Your task to perform on an android device: uninstall "Roku - Official Remote Control" Image 0: 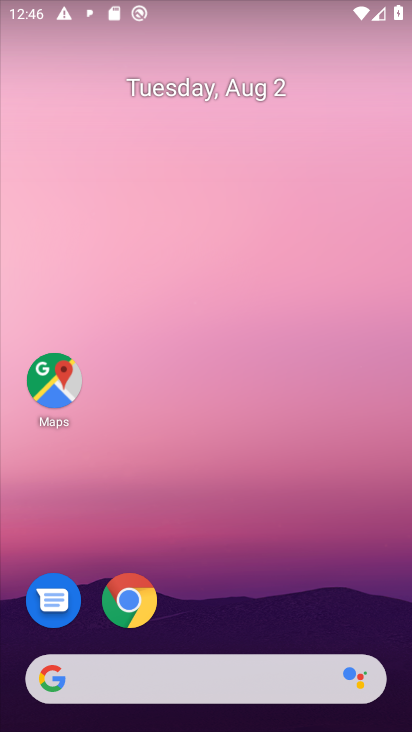
Step 0: drag from (167, 651) to (145, 223)
Your task to perform on an android device: uninstall "Roku - Official Remote Control" Image 1: 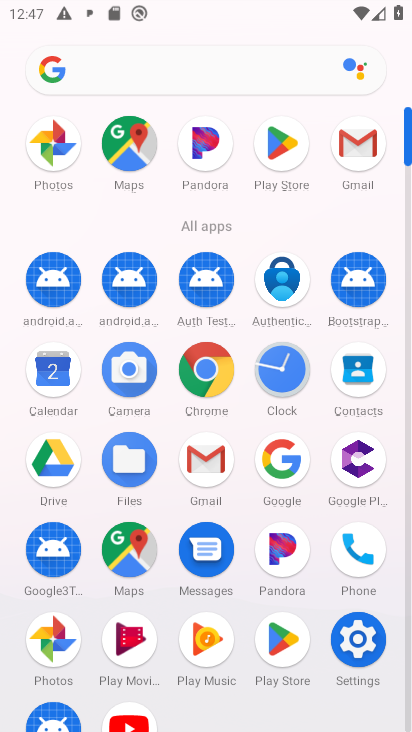
Step 1: click (282, 155)
Your task to perform on an android device: uninstall "Roku - Official Remote Control" Image 2: 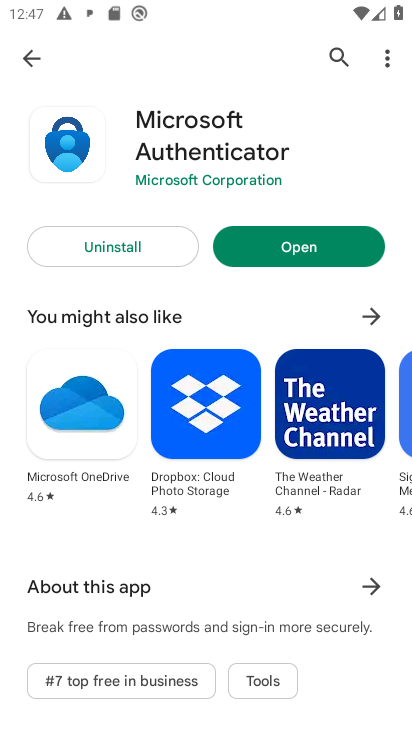
Step 2: click (18, 64)
Your task to perform on an android device: uninstall "Roku - Official Remote Control" Image 3: 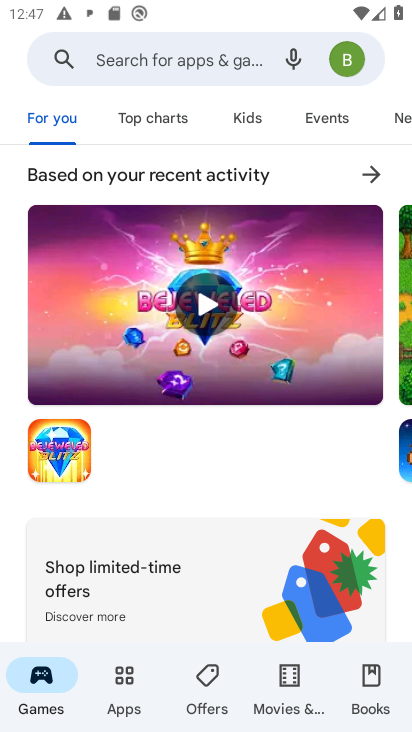
Step 3: click (179, 57)
Your task to perform on an android device: uninstall "Roku - Official Remote Control" Image 4: 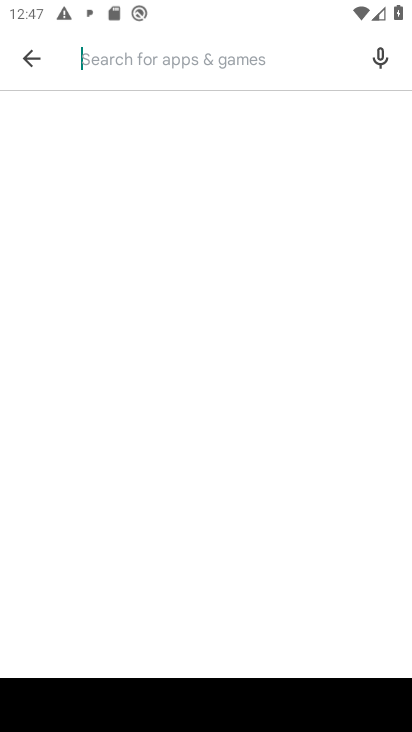
Step 4: type "Roku - Official Remote Control"
Your task to perform on an android device: uninstall "Roku - Official Remote Control" Image 5: 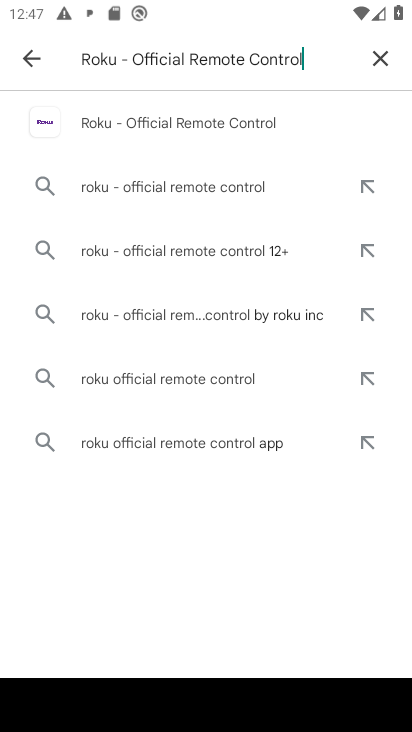
Step 5: click (126, 125)
Your task to perform on an android device: uninstall "Roku - Official Remote Control" Image 6: 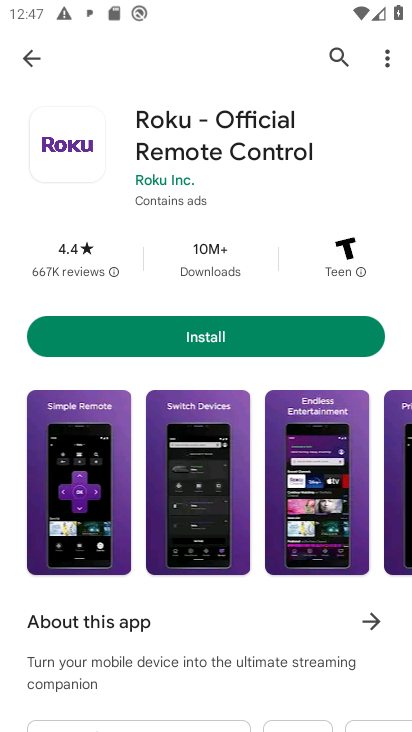
Step 6: task complete